Your task to perform on an android device: check out phone information Image 0: 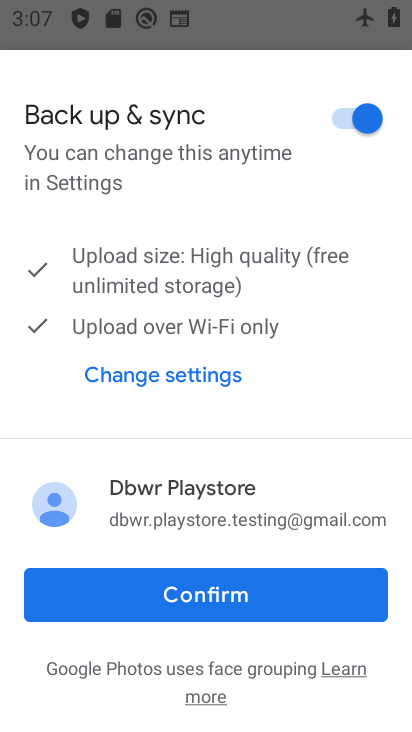
Step 0: press home button
Your task to perform on an android device: check out phone information Image 1: 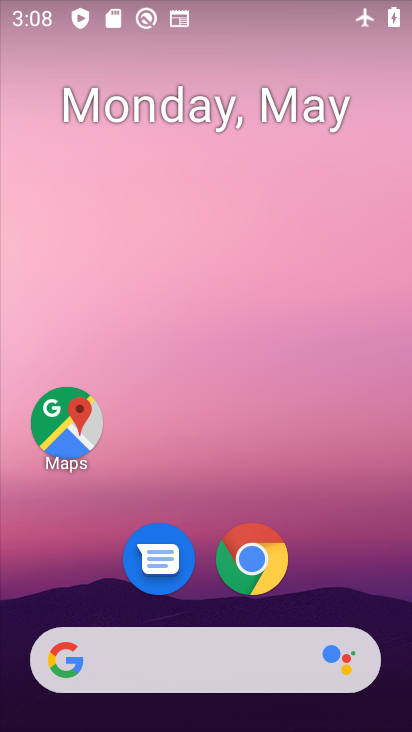
Step 1: drag from (66, 606) to (183, 144)
Your task to perform on an android device: check out phone information Image 2: 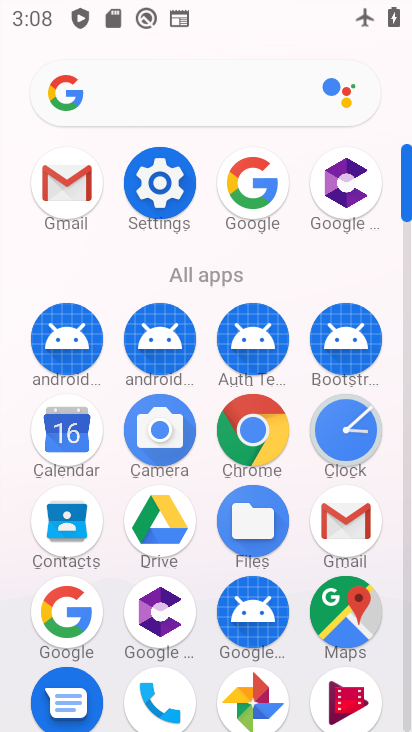
Step 2: drag from (216, 611) to (281, 368)
Your task to perform on an android device: check out phone information Image 3: 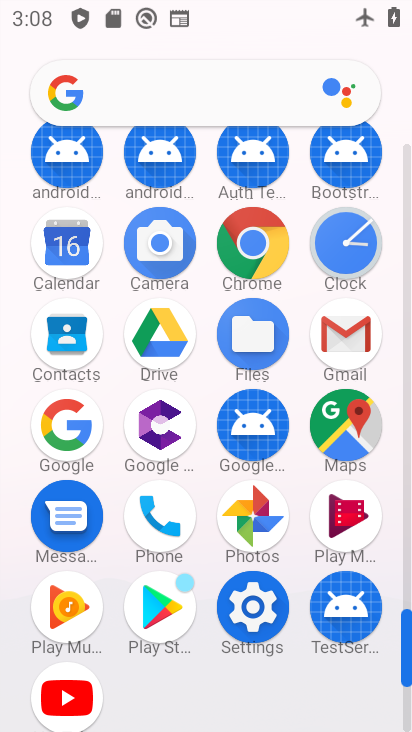
Step 3: click (256, 625)
Your task to perform on an android device: check out phone information Image 4: 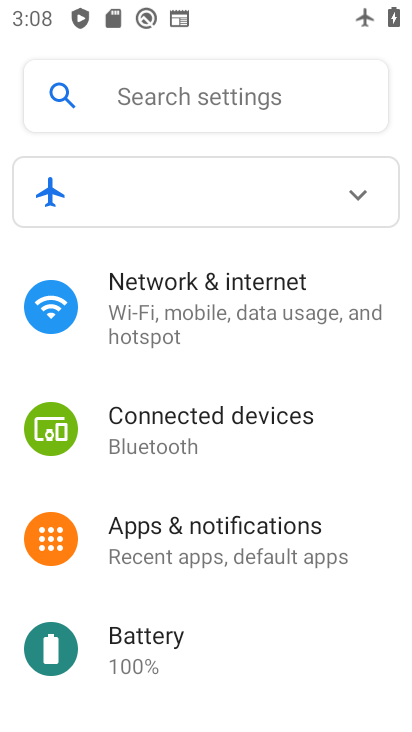
Step 4: drag from (206, 660) to (351, 169)
Your task to perform on an android device: check out phone information Image 5: 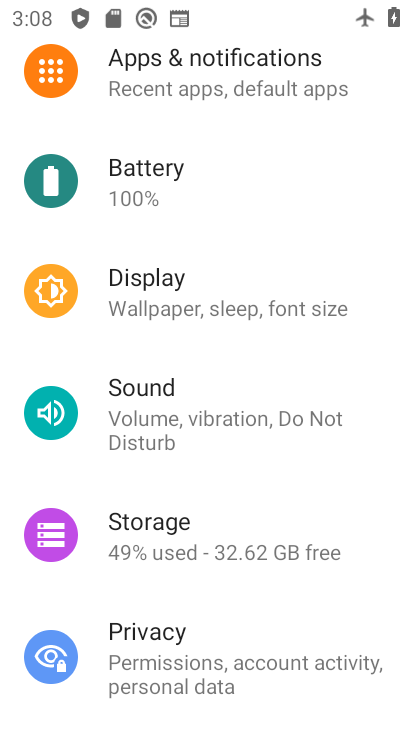
Step 5: drag from (309, 548) to (351, 103)
Your task to perform on an android device: check out phone information Image 6: 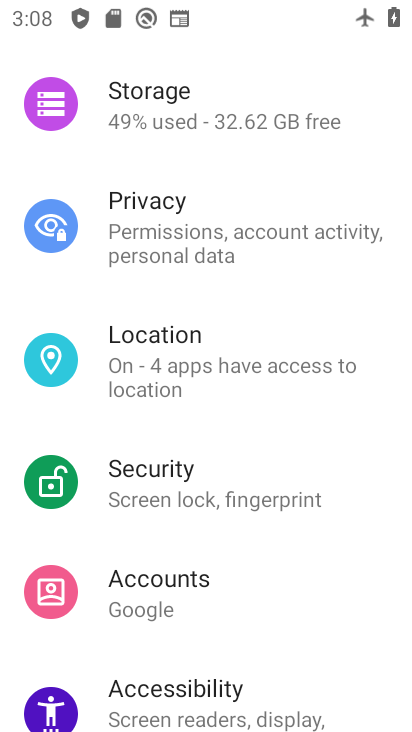
Step 6: drag from (220, 597) to (344, 186)
Your task to perform on an android device: check out phone information Image 7: 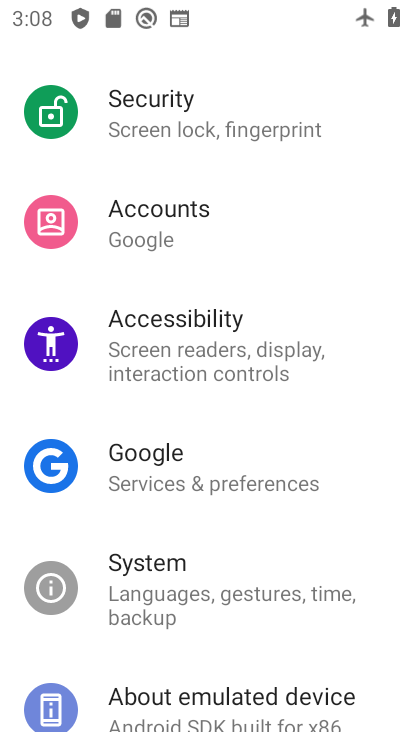
Step 7: drag from (224, 641) to (335, 199)
Your task to perform on an android device: check out phone information Image 8: 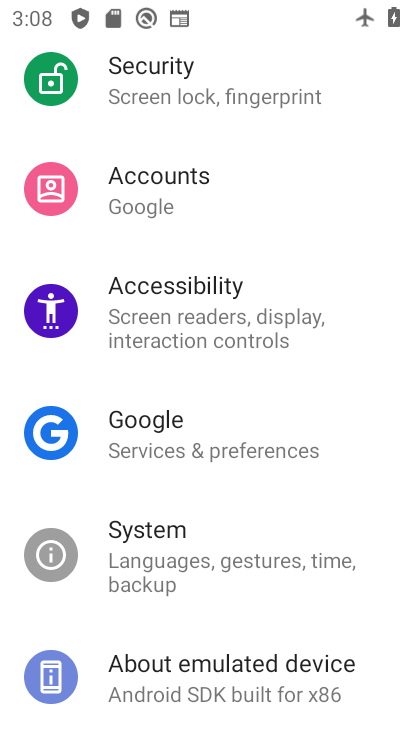
Step 8: click (239, 687)
Your task to perform on an android device: check out phone information Image 9: 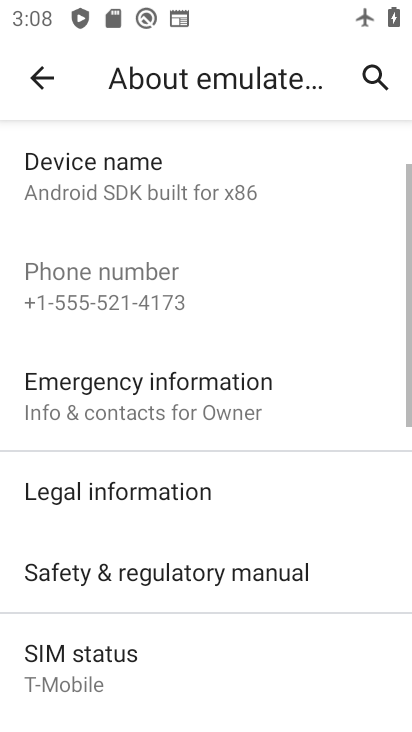
Step 9: task complete